Your task to perform on an android device: toggle notifications settings in the gmail app Image 0: 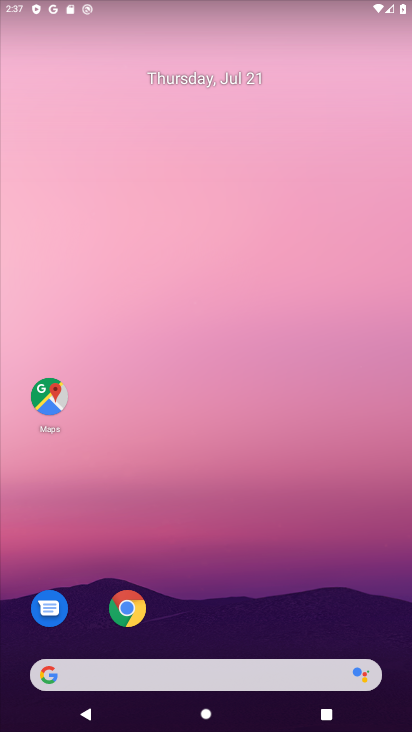
Step 0: press home button
Your task to perform on an android device: toggle notifications settings in the gmail app Image 1: 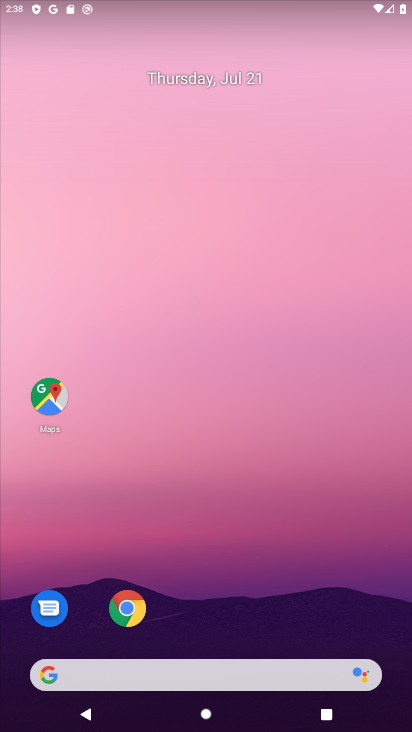
Step 1: drag from (209, 629) to (223, 83)
Your task to perform on an android device: toggle notifications settings in the gmail app Image 2: 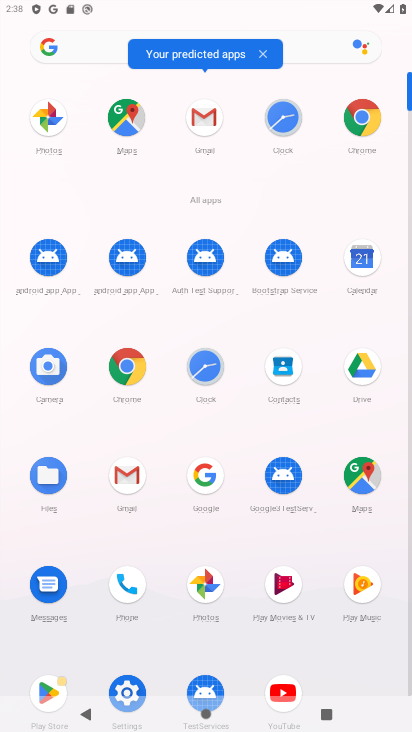
Step 2: click (204, 113)
Your task to perform on an android device: toggle notifications settings in the gmail app Image 3: 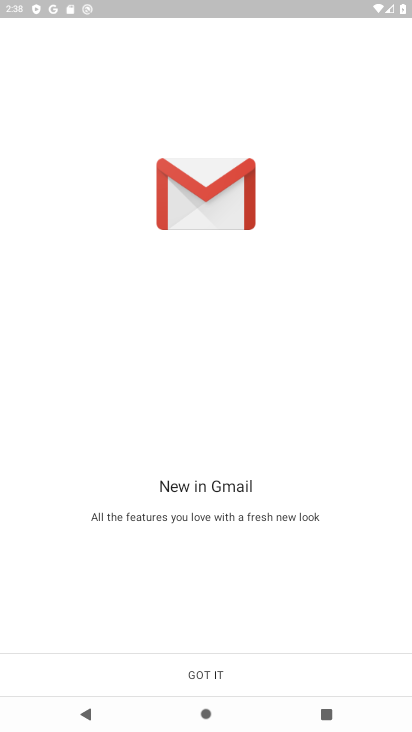
Step 3: click (207, 667)
Your task to perform on an android device: toggle notifications settings in the gmail app Image 4: 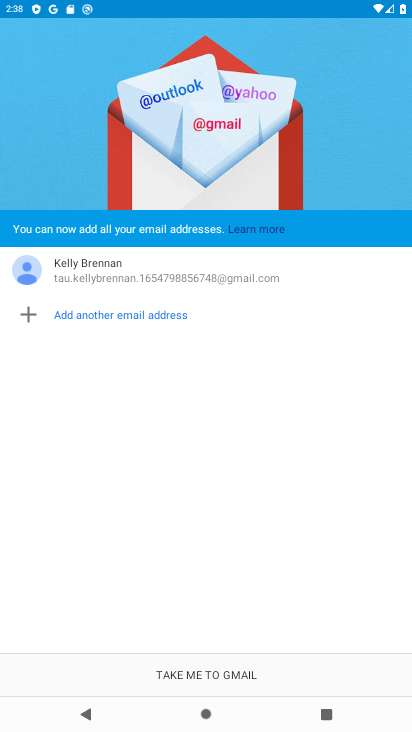
Step 4: click (204, 670)
Your task to perform on an android device: toggle notifications settings in the gmail app Image 5: 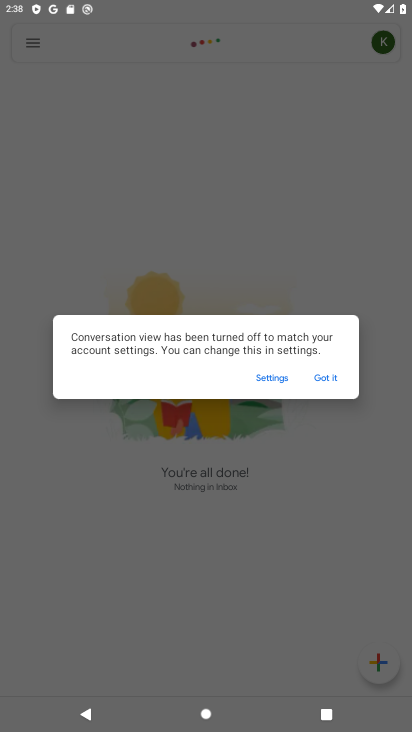
Step 5: click (330, 376)
Your task to perform on an android device: toggle notifications settings in the gmail app Image 6: 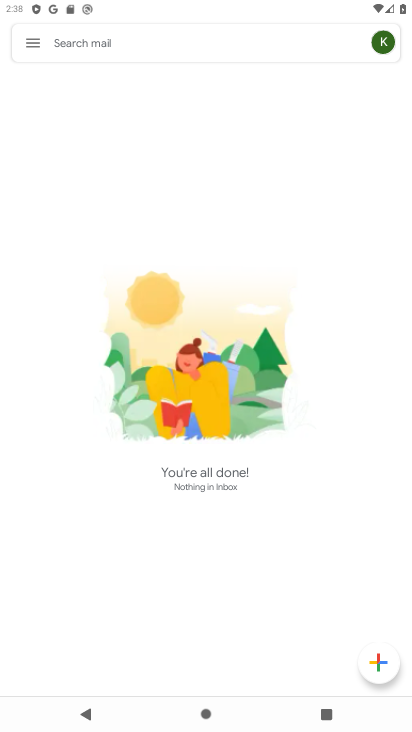
Step 6: click (29, 38)
Your task to perform on an android device: toggle notifications settings in the gmail app Image 7: 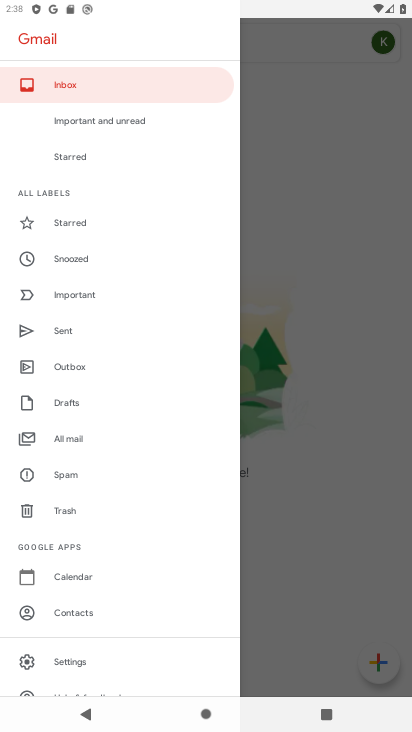
Step 7: click (94, 662)
Your task to perform on an android device: toggle notifications settings in the gmail app Image 8: 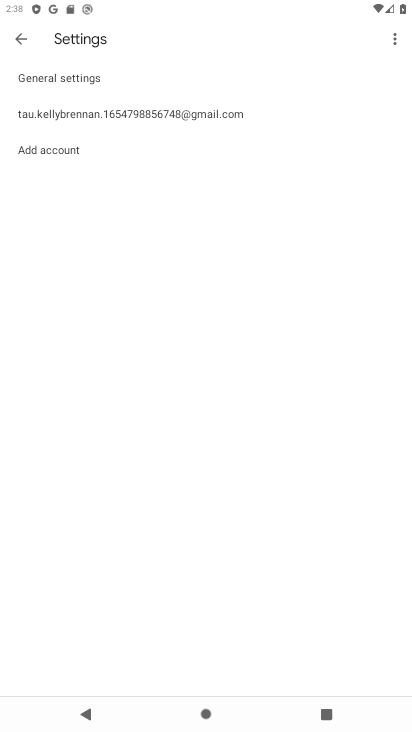
Step 8: click (107, 73)
Your task to perform on an android device: toggle notifications settings in the gmail app Image 9: 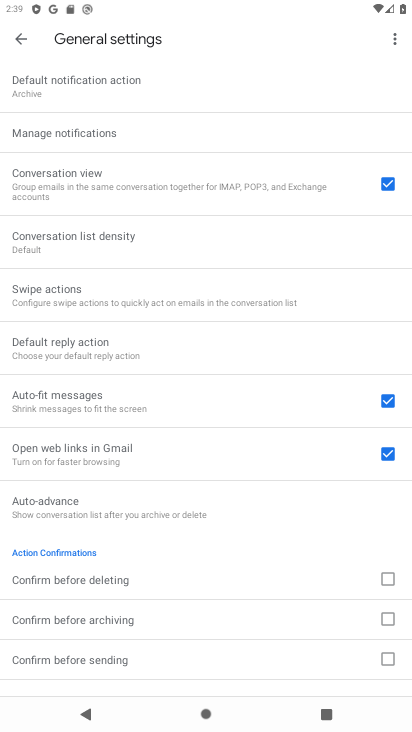
Step 9: click (123, 134)
Your task to perform on an android device: toggle notifications settings in the gmail app Image 10: 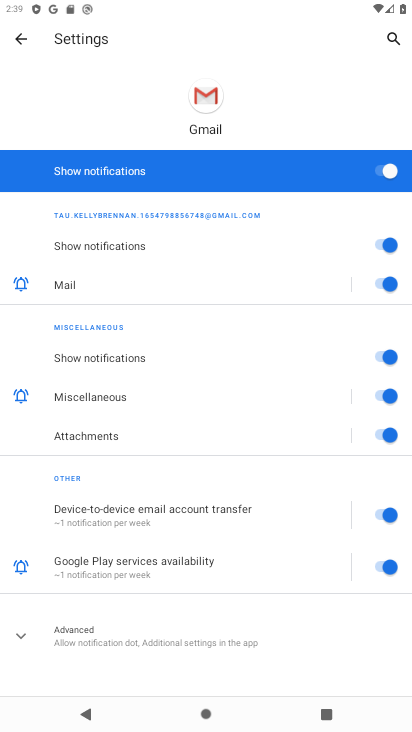
Step 10: click (384, 171)
Your task to perform on an android device: toggle notifications settings in the gmail app Image 11: 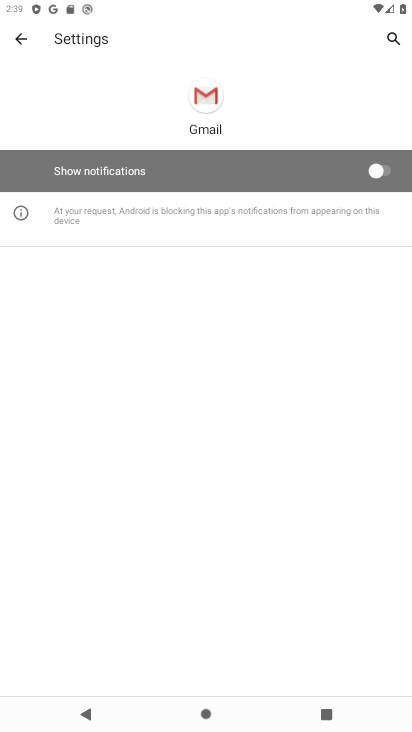
Step 11: task complete